Your task to perform on an android device: turn on airplane mode Image 0: 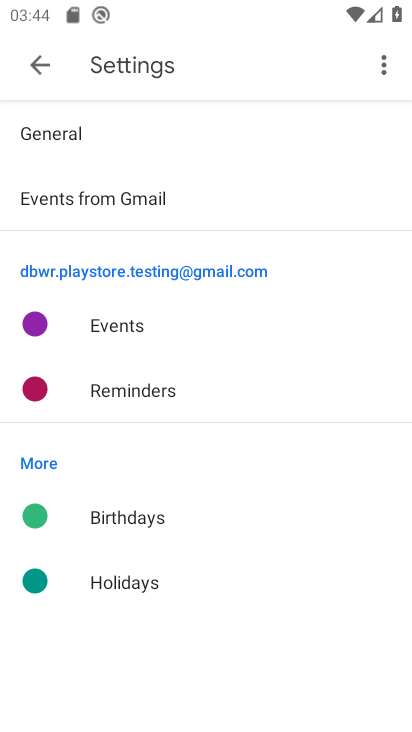
Step 0: press home button
Your task to perform on an android device: turn on airplane mode Image 1: 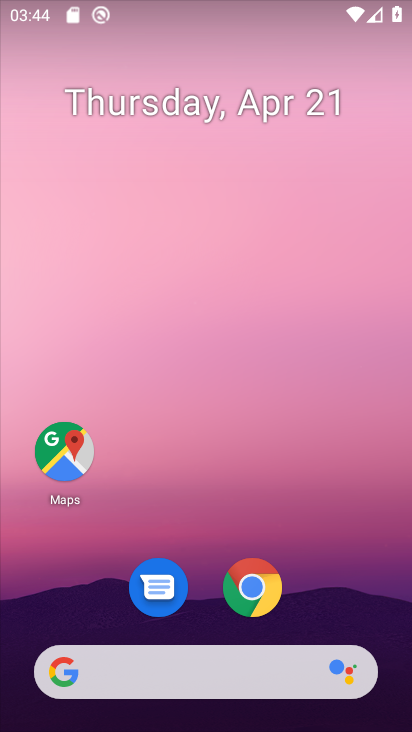
Step 1: drag from (332, 572) to (339, 121)
Your task to perform on an android device: turn on airplane mode Image 2: 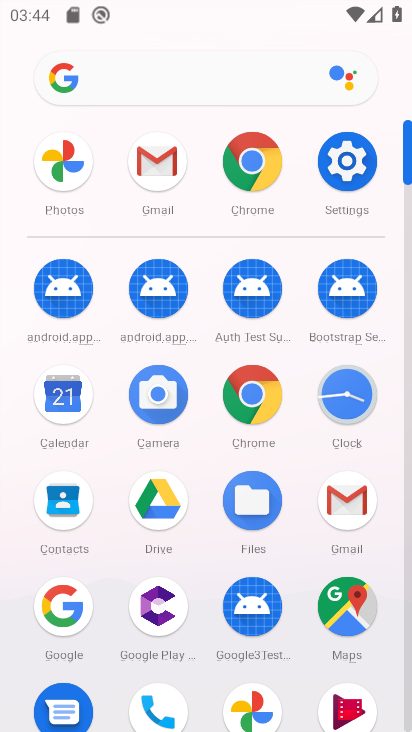
Step 2: click (355, 177)
Your task to perform on an android device: turn on airplane mode Image 3: 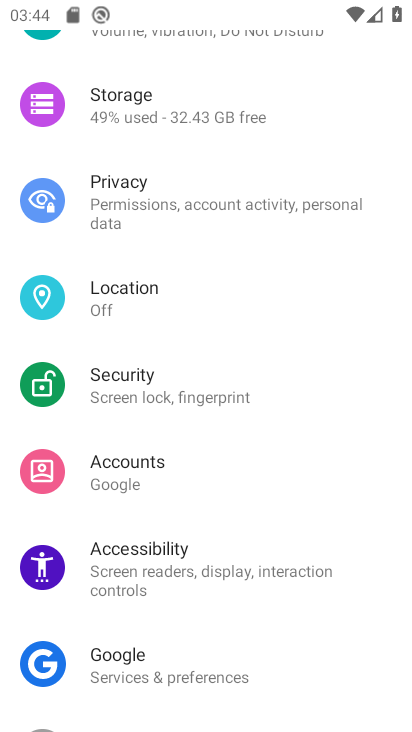
Step 3: drag from (354, 629) to (368, 376)
Your task to perform on an android device: turn on airplane mode Image 4: 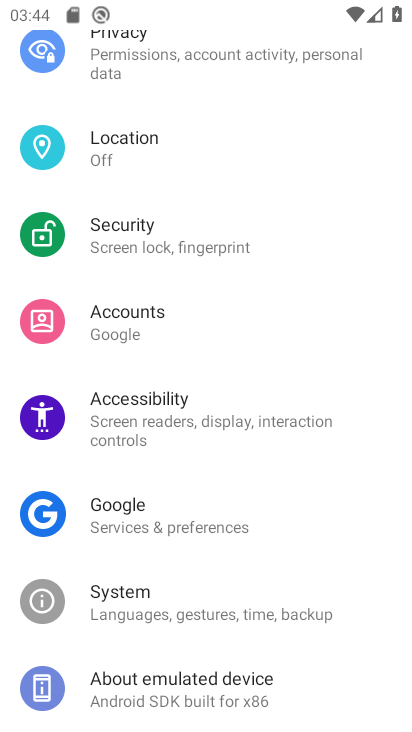
Step 4: drag from (372, 310) to (367, 436)
Your task to perform on an android device: turn on airplane mode Image 5: 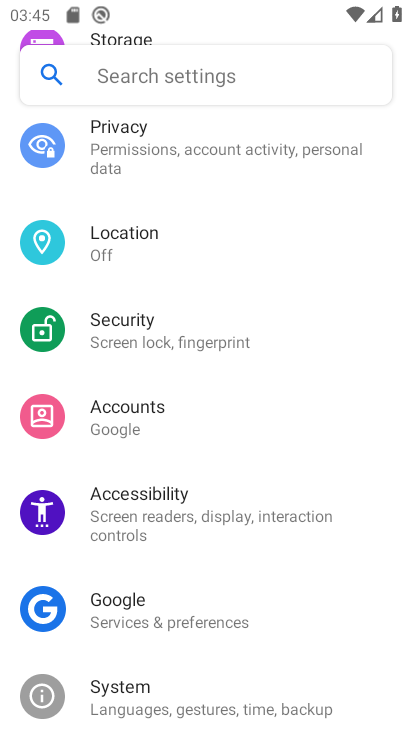
Step 5: drag from (347, 327) to (340, 472)
Your task to perform on an android device: turn on airplane mode Image 6: 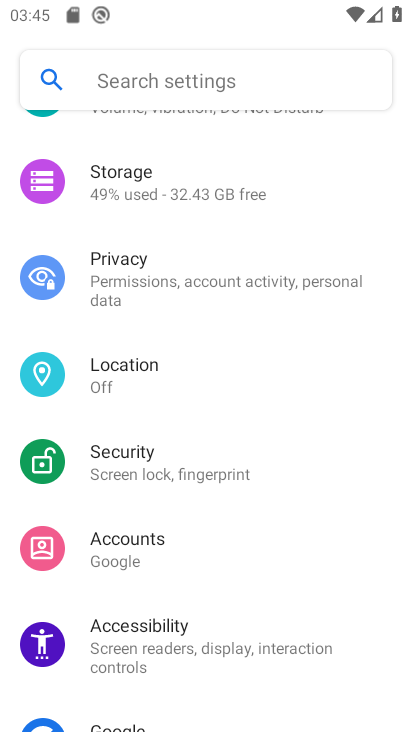
Step 6: drag from (339, 344) to (340, 486)
Your task to perform on an android device: turn on airplane mode Image 7: 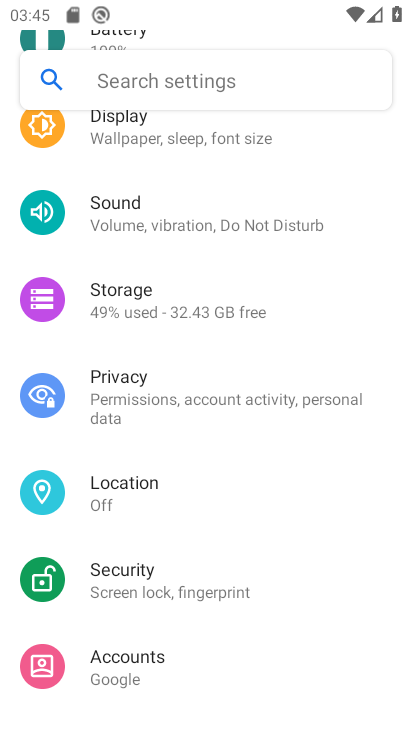
Step 7: drag from (371, 320) to (374, 480)
Your task to perform on an android device: turn on airplane mode Image 8: 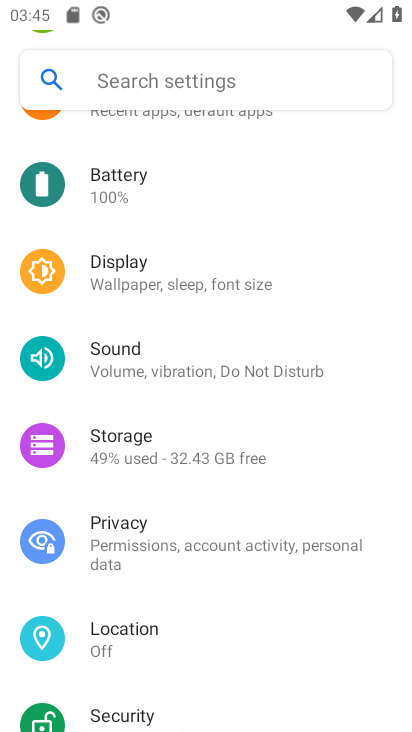
Step 8: drag from (373, 313) to (368, 447)
Your task to perform on an android device: turn on airplane mode Image 9: 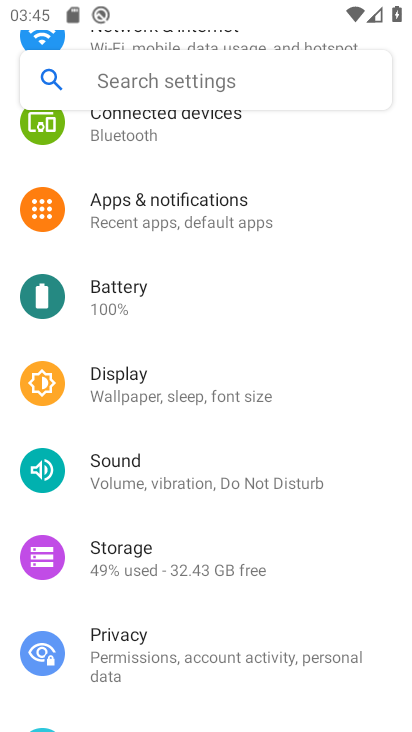
Step 9: drag from (361, 293) to (367, 434)
Your task to perform on an android device: turn on airplane mode Image 10: 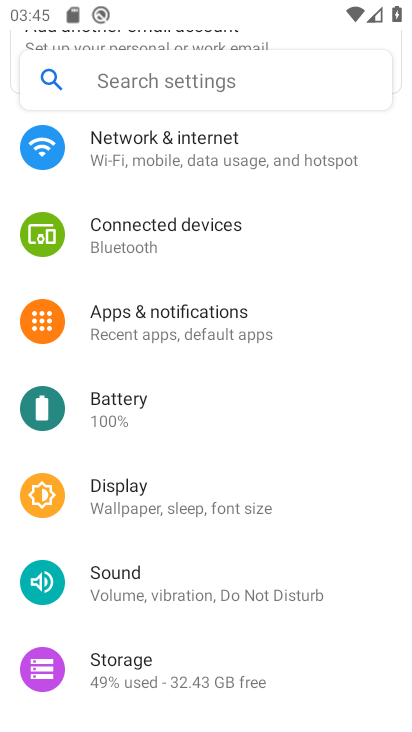
Step 10: drag from (359, 308) to (356, 457)
Your task to perform on an android device: turn on airplane mode Image 11: 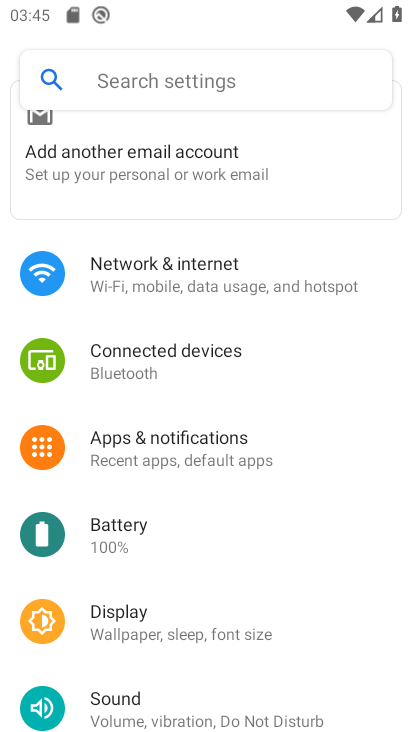
Step 11: drag from (350, 342) to (349, 514)
Your task to perform on an android device: turn on airplane mode Image 12: 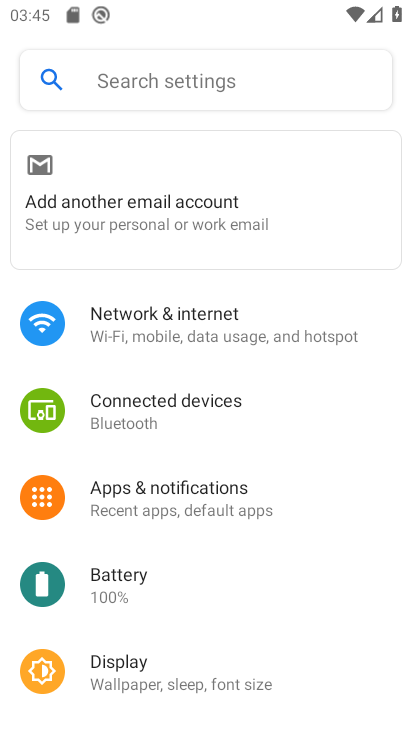
Step 12: click (308, 322)
Your task to perform on an android device: turn on airplane mode Image 13: 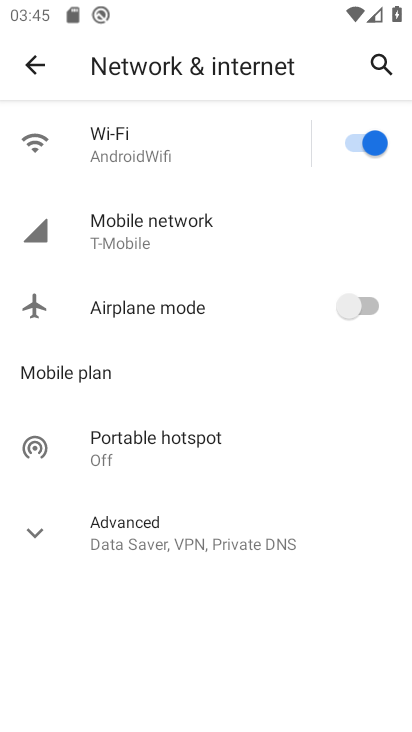
Step 13: click (352, 305)
Your task to perform on an android device: turn on airplane mode Image 14: 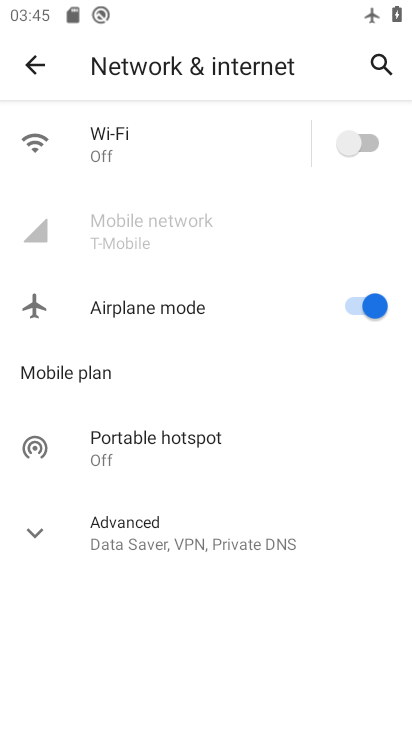
Step 14: task complete